Your task to perform on an android device: turn on wifi Image 0: 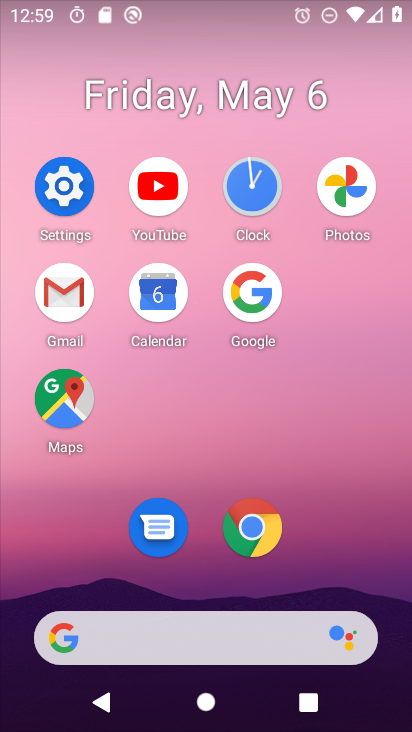
Step 0: click (86, 193)
Your task to perform on an android device: turn on wifi Image 1: 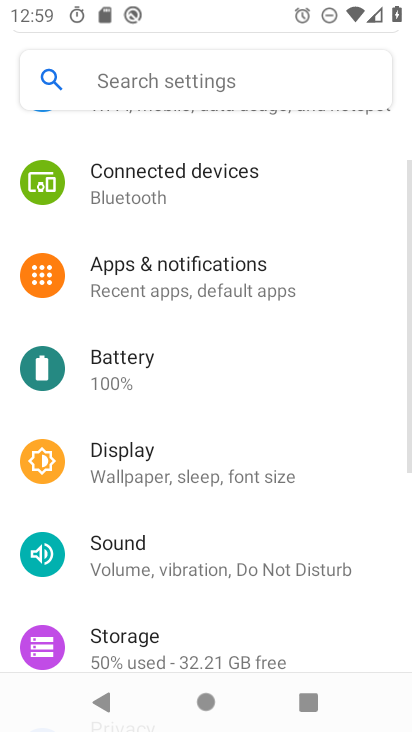
Step 1: drag from (262, 164) to (212, 605)
Your task to perform on an android device: turn on wifi Image 2: 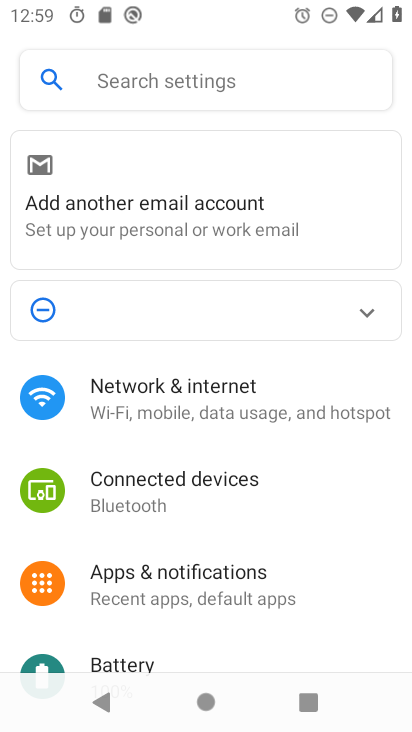
Step 2: click (242, 427)
Your task to perform on an android device: turn on wifi Image 3: 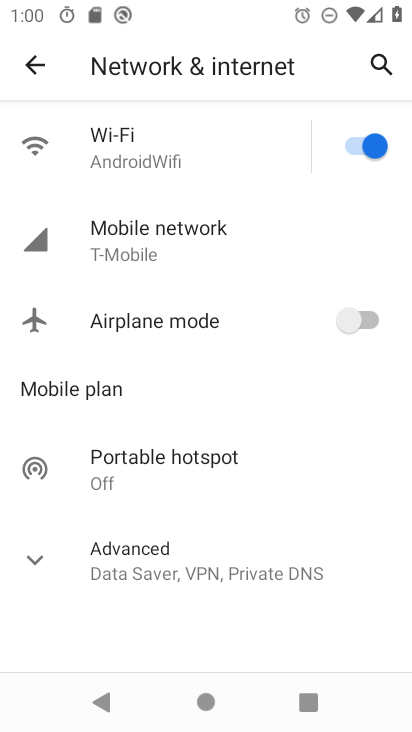
Step 3: click (168, 152)
Your task to perform on an android device: turn on wifi Image 4: 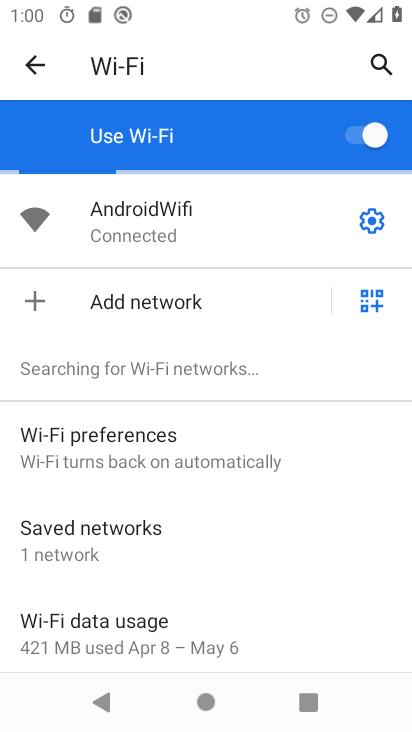
Step 4: task complete